Your task to perform on an android device: empty trash in the gmail app Image 0: 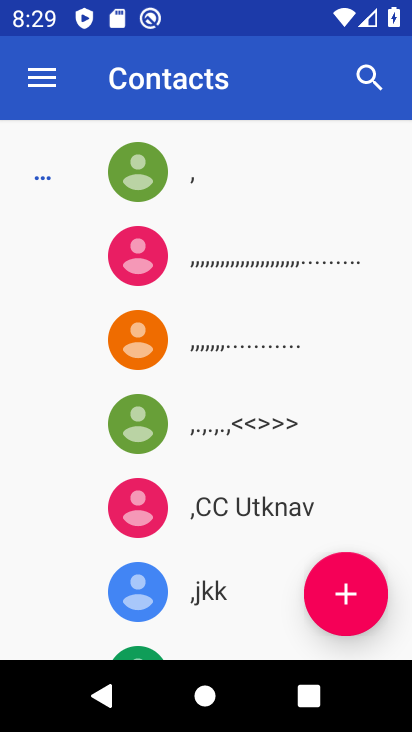
Step 0: press back button
Your task to perform on an android device: empty trash in the gmail app Image 1: 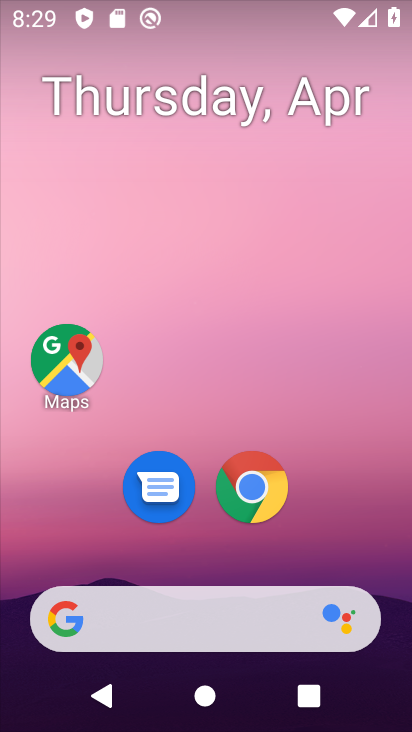
Step 1: drag from (185, 552) to (177, 150)
Your task to perform on an android device: empty trash in the gmail app Image 2: 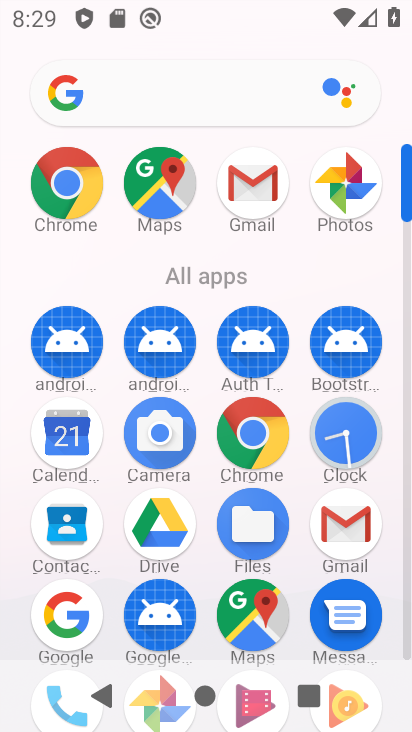
Step 2: click (247, 213)
Your task to perform on an android device: empty trash in the gmail app Image 3: 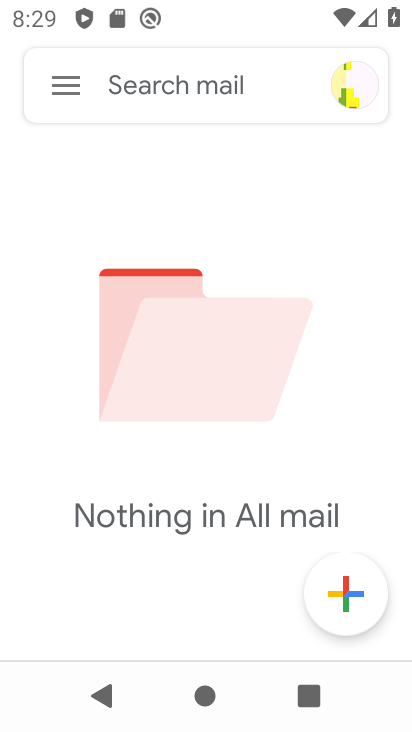
Step 3: click (63, 88)
Your task to perform on an android device: empty trash in the gmail app Image 4: 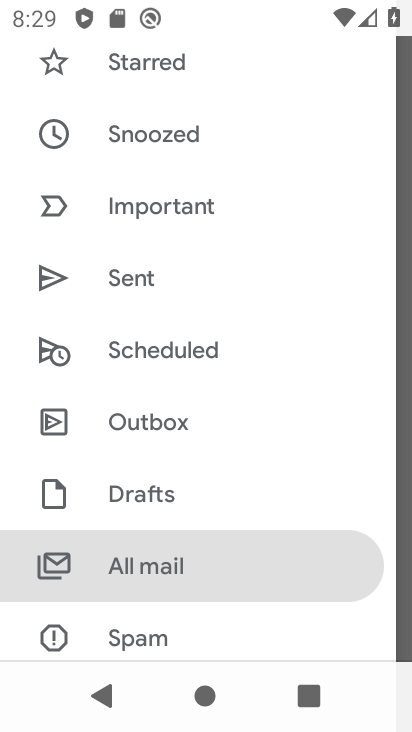
Step 4: drag from (206, 482) to (257, 191)
Your task to perform on an android device: empty trash in the gmail app Image 5: 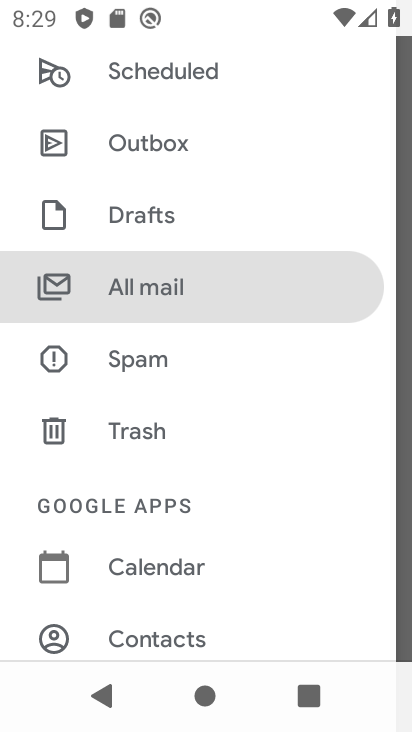
Step 5: click (141, 433)
Your task to perform on an android device: empty trash in the gmail app Image 6: 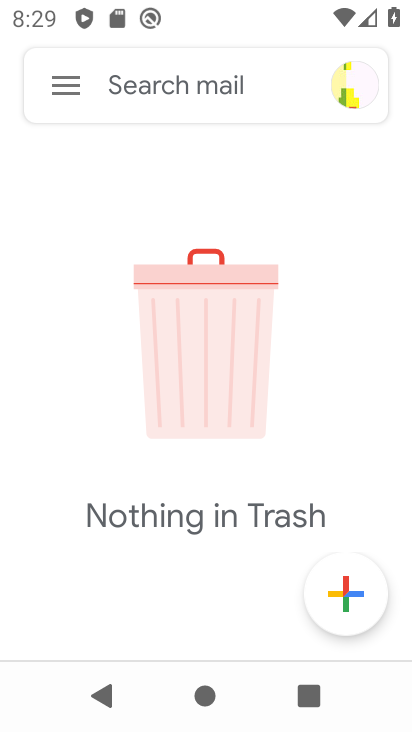
Step 6: task complete